Your task to perform on an android device: Open Google Chrome and open the bookmarks view Image 0: 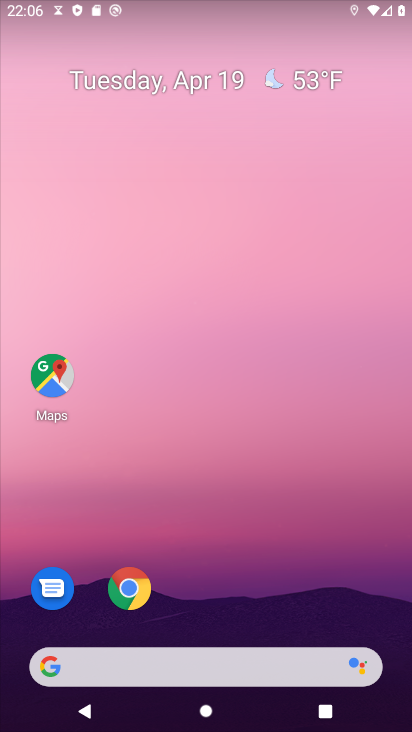
Step 0: drag from (222, 566) to (253, 74)
Your task to perform on an android device: Open Google Chrome and open the bookmarks view Image 1: 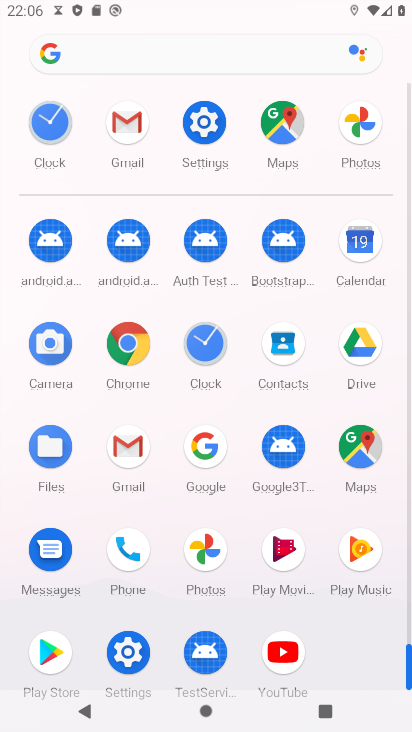
Step 1: click (128, 343)
Your task to perform on an android device: Open Google Chrome and open the bookmarks view Image 2: 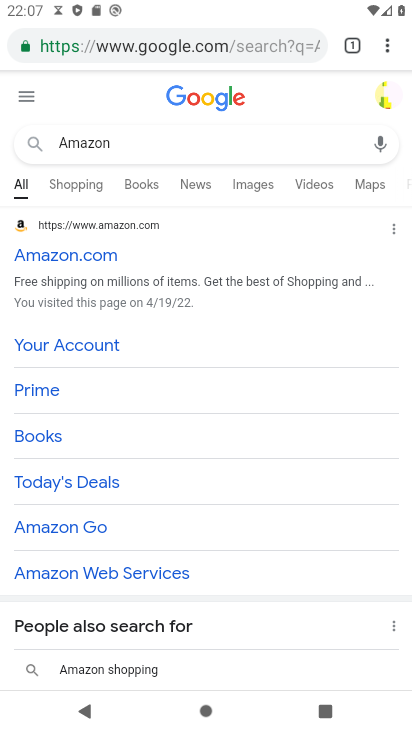
Step 2: click (393, 44)
Your task to perform on an android device: Open Google Chrome and open the bookmarks view Image 3: 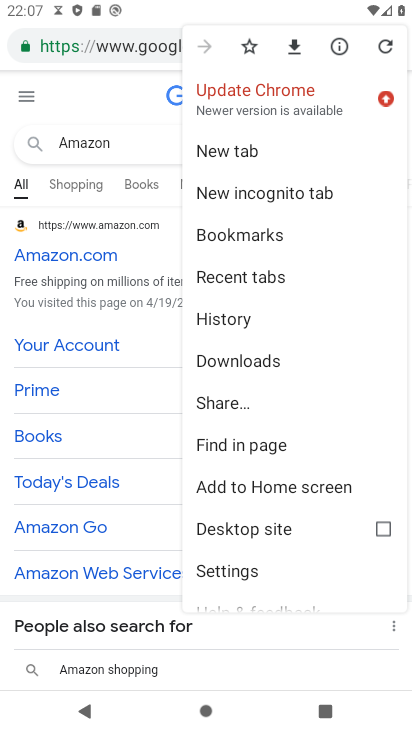
Step 3: click (274, 238)
Your task to perform on an android device: Open Google Chrome and open the bookmarks view Image 4: 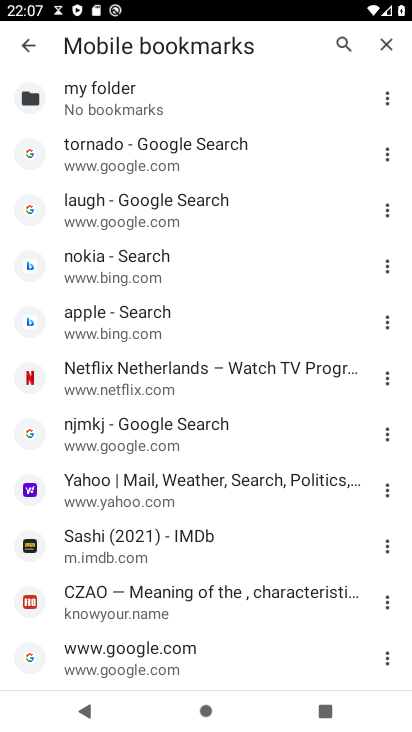
Step 4: click (141, 356)
Your task to perform on an android device: Open Google Chrome and open the bookmarks view Image 5: 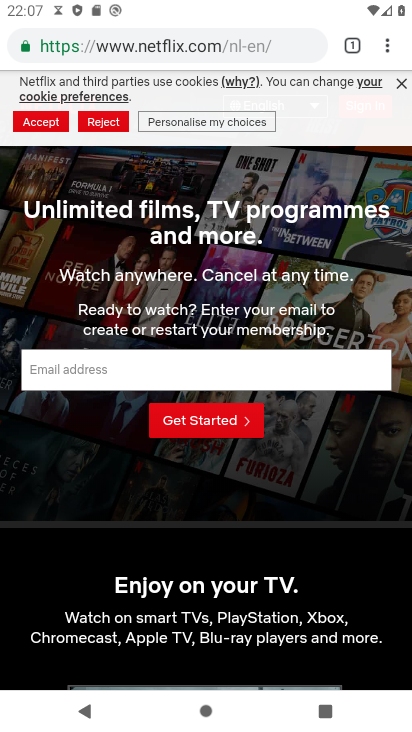
Step 5: task complete